Your task to perform on an android device: What's the weather going to be this weekend? Image 0: 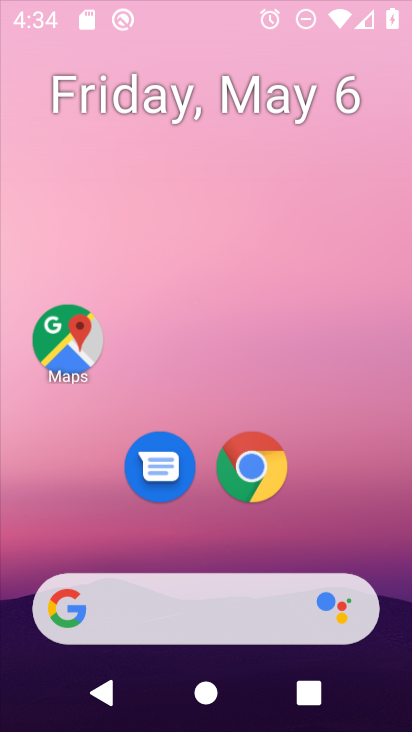
Step 0: click (267, 43)
Your task to perform on an android device: What's the weather going to be this weekend? Image 1: 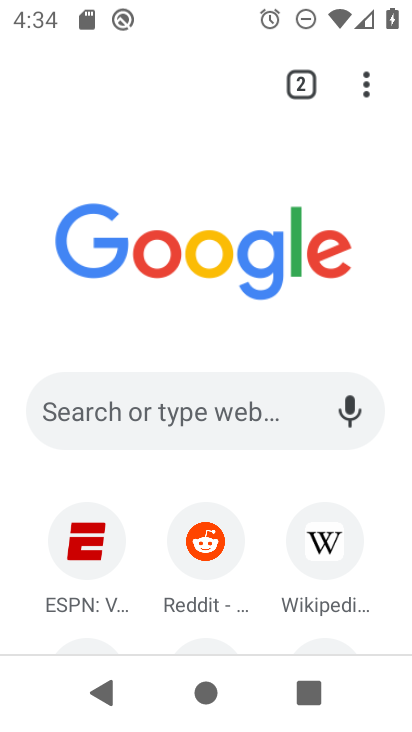
Step 1: press home button
Your task to perform on an android device: What's the weather going to be this weekend? Image 2: 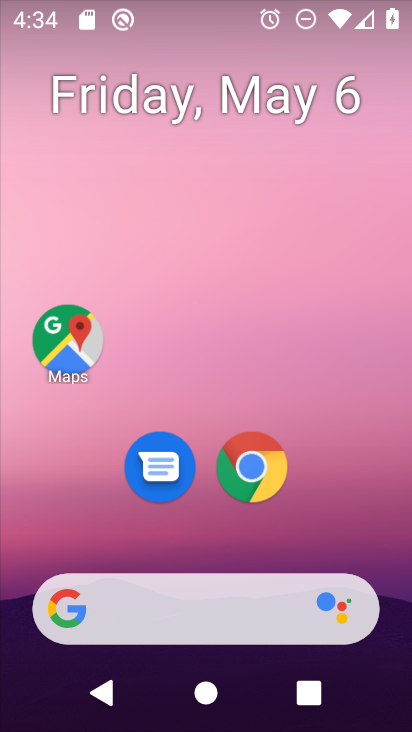
Step 2: drag from (311, 488) to (231, 190)
Your task to perform on an android device: What's the weather going to be this weekend? Image 3: 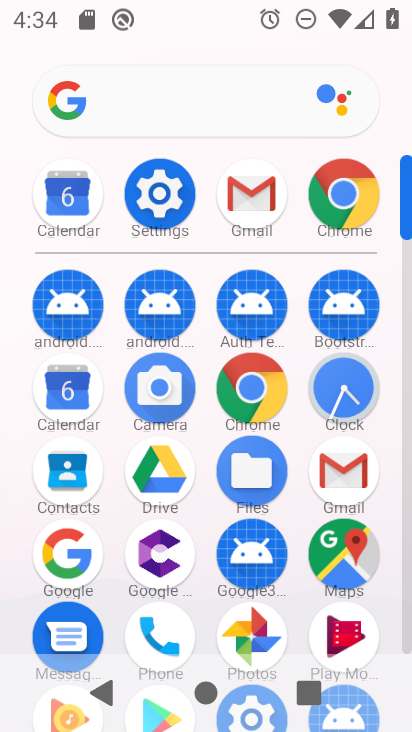
Step 3: click (67, 571)
Your task to perform on an android device: What's the weather going to be this weekend? Image 4: 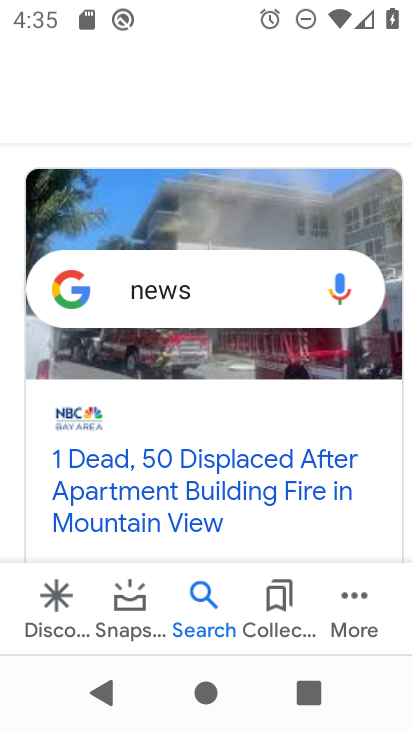
Step 4: click (210, 309)
Your task to perform on an android device: What's the weather going to be this weekend? Image 5: 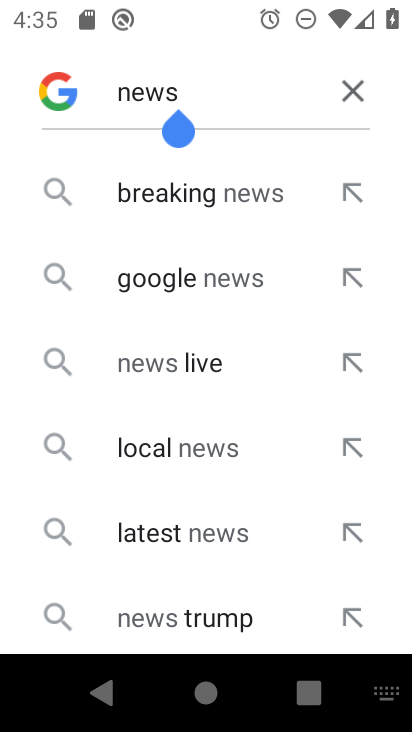
Step 5: click (350, 93)
Your task to perform on an android device: What's the weather going to be this weekend? Image 6: 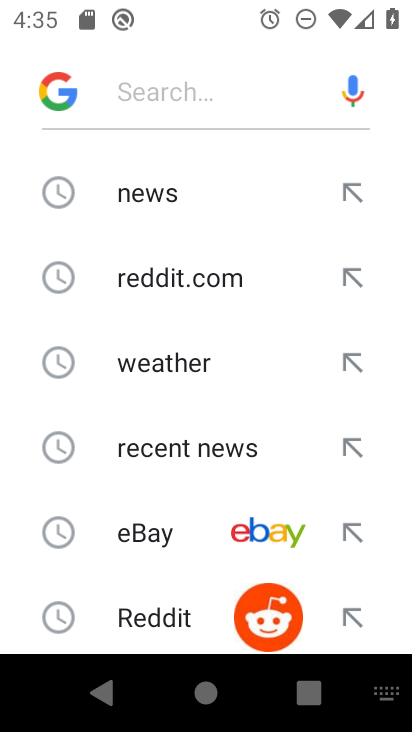
Step 6: click (150, 360)
Your task to perform on an android device: What's the weather going to be this weekend? Image 7: 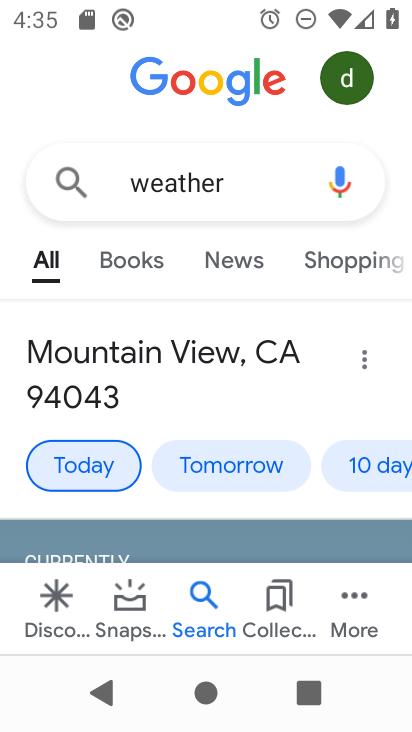
Step 7: click (383, 460)
Your task to perform on an android device: What's the weather going to be this weekend? Image 8: 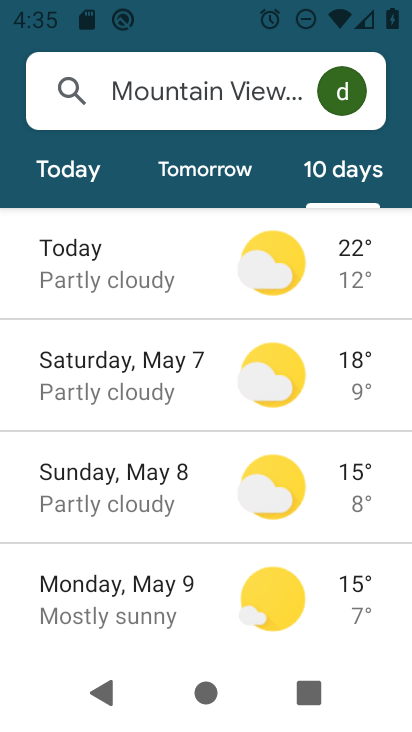
Step 8: task complete